Your task to perform on an android device: Go to privacy settings Image 0: 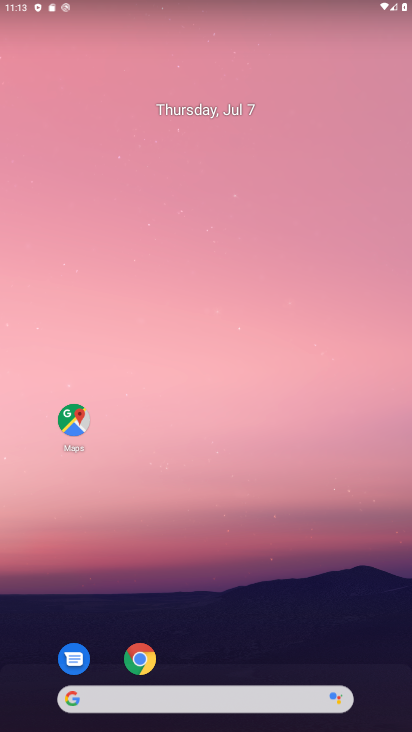
Step 0: drag from (193, 658) to (210, 214)
Your task to perform on an android device: Go to privacy settings Image 1: 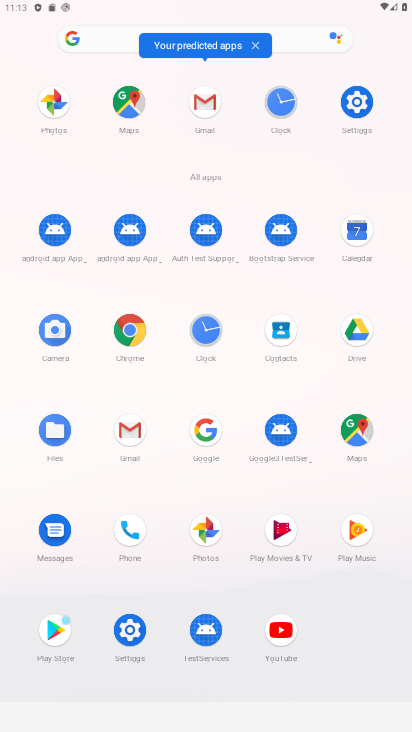
Step 1: click (366, 101)
Your task to perform on an android device: Go to privacy settings Image 2: 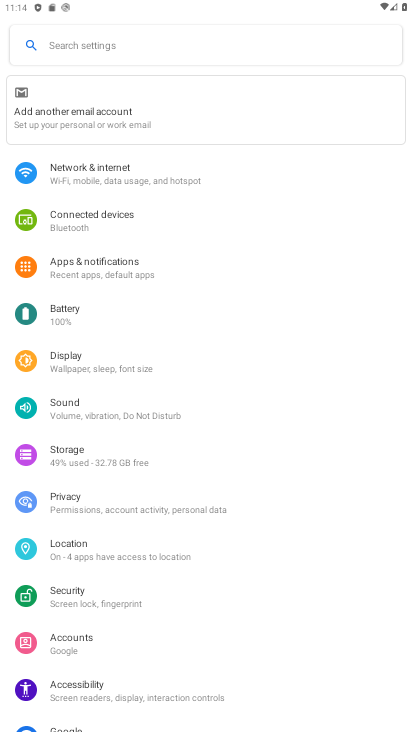
Step 2: click (112, 516)
Your task to perform on an android device: Go to privacy settings Image 3: 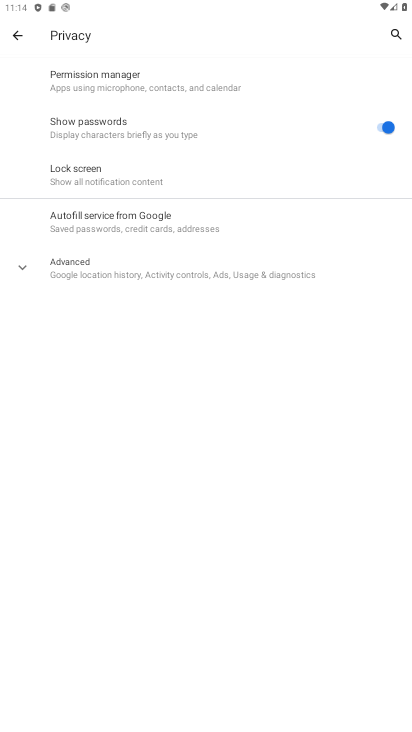
Step 3: click (109, 515)
Your task to perform on an android device: Go to privacy settings Image 4: 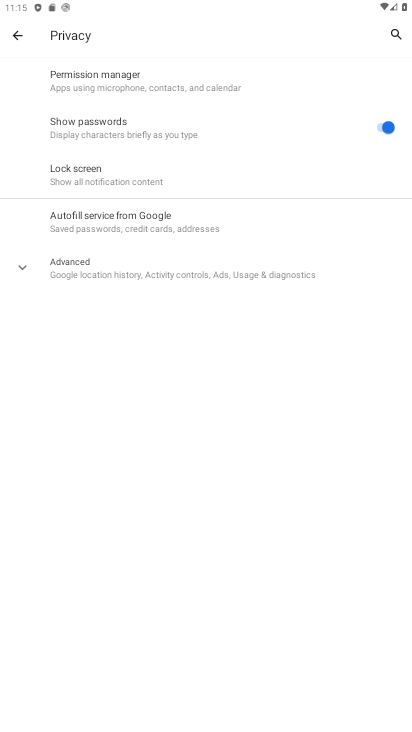
Step 4: task complete